Your task to perform on an android device: Open Chrome and go to the settings page Image 0: 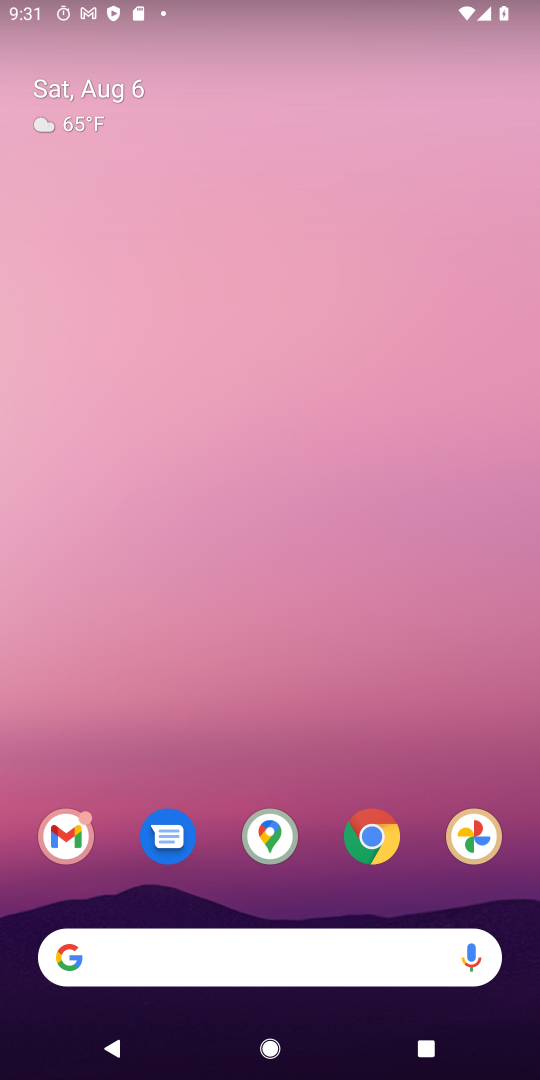
Step 0: drag from (405, 700) to (285, 93)
Your task to perform on an android device: Open Chrome and go to the settings page Image 1: 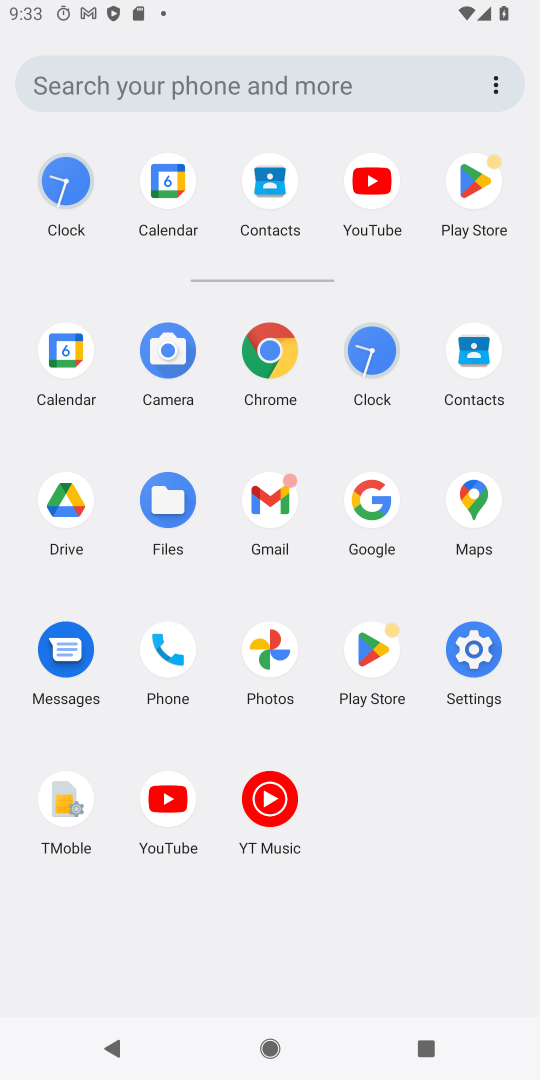
Step 1: click (277, 357)
Your task to perform on an android device: Open Chrome and go to the settings page Image 2: 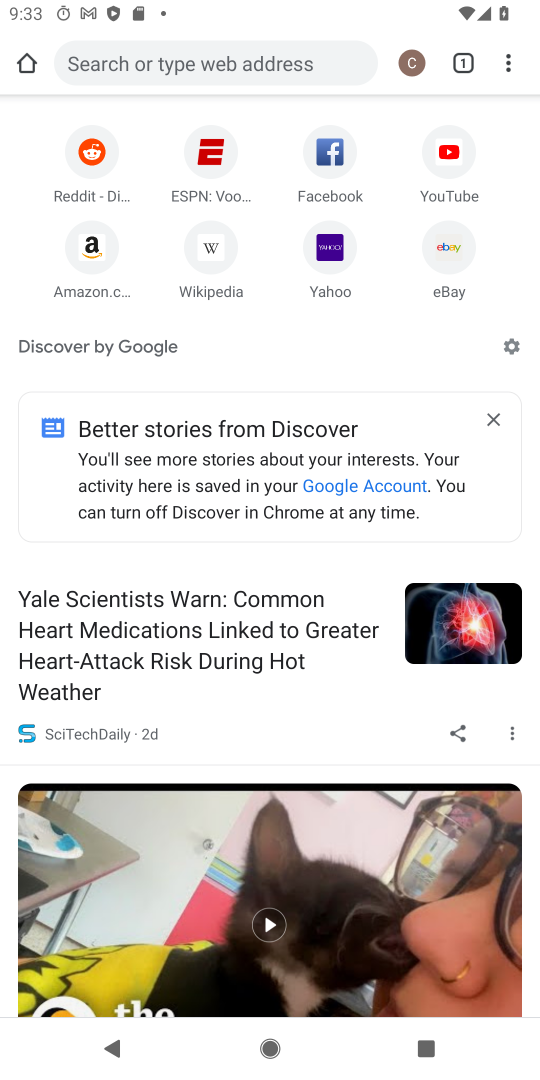
Step 2: click (512, 49)
Your task to perform on an android device: Open Chrome and go to the settings page Image 3: 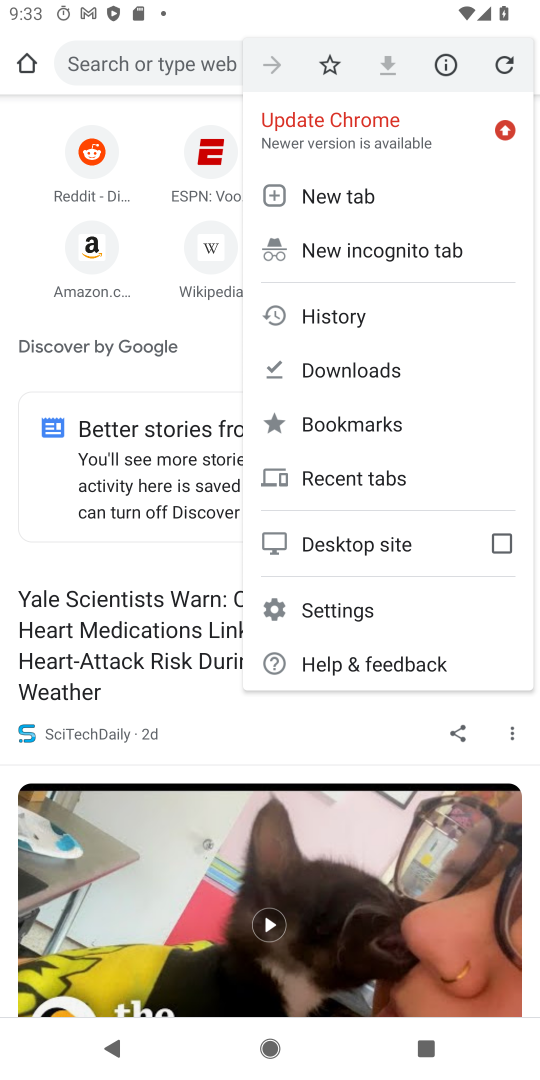
Step 3: click (303, 602)
Your task to perform on an android device: Open Chrome and go to the settings page Image 4: 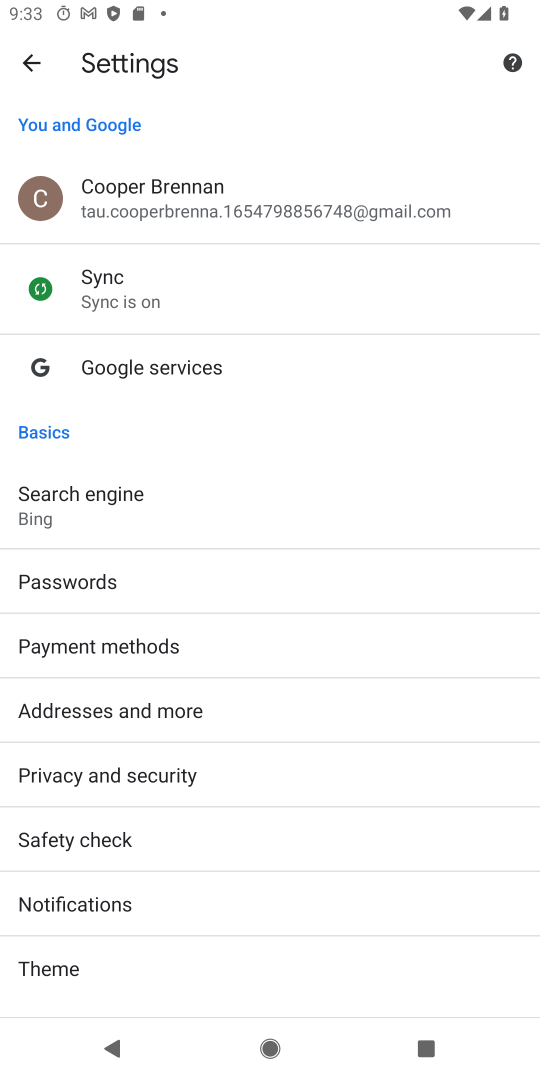
Step 4: task complete